Your task to perform on an android device: turn off priority inbox in the gmail app Image 0: 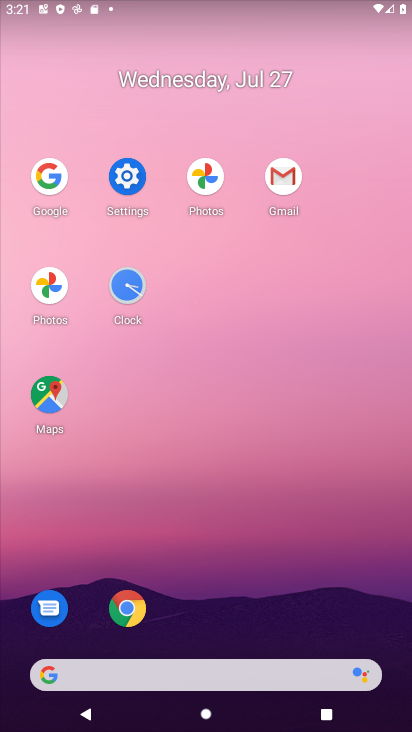
Step 0: click (275, 169)
Your task to perform on an android device: turn off priority inbox in the gmail app Image 1: 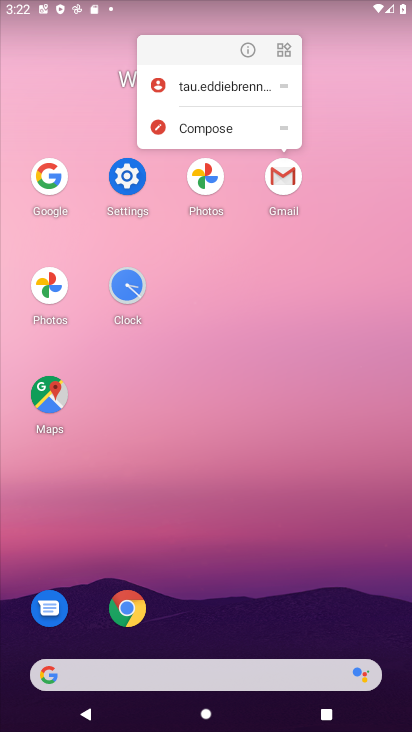
Step 1: click (282, 164)
Your task to perform on an android device: turn off priority inbox in the gmail app Image 2: 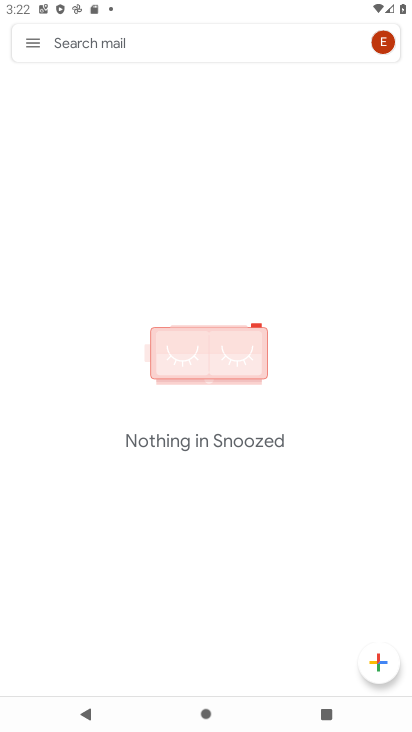
Step 2: click (23, 46)
Your task to perform on an android device: turn off priority inbox in the gmail app Image 3: 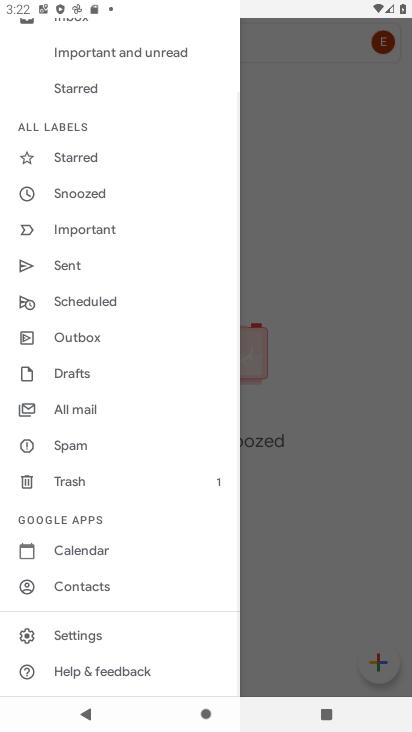
Step 3: click (75, 635)
Your task to perform on an android device: turn off priority inbox in the gmail app Image 4: 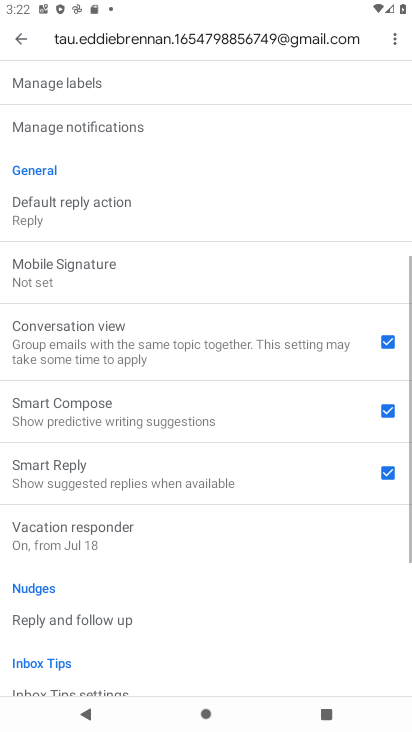
Step 4: drag from (93, 597) to (104, 265)
Your task to perform on an android device: turn off priority inbox in the gmail app Image 5: 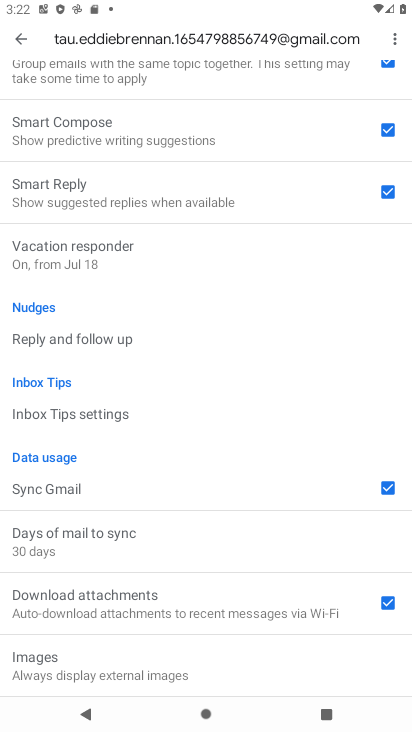
Step 5: drag from (326, 388) to (388, 617)
Your task to perform on an android device: turn off priority inbox in the gmail app Image 6: 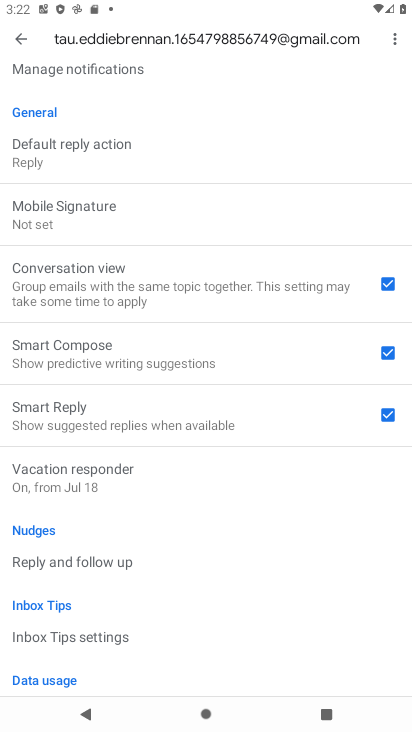
Step 6: drag from (186, 135) to (276, 485)
Your task to perform on an android device: turn off priority inbox in the gmail app Image 7: 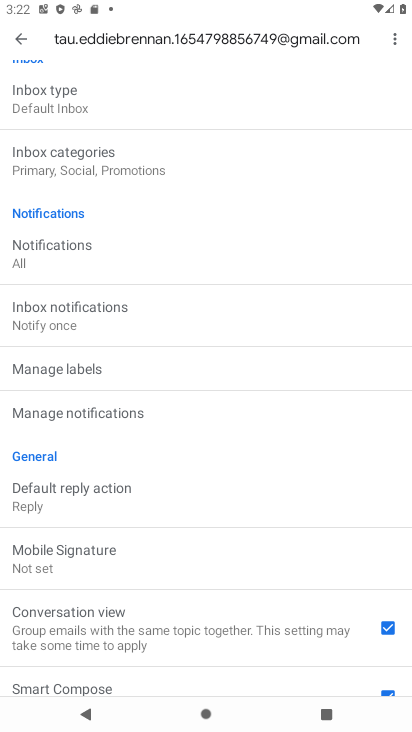
Step 7: click (75, 99)
Your task to perform on an android device: turn off priority inbox in the gmail app Image 8: 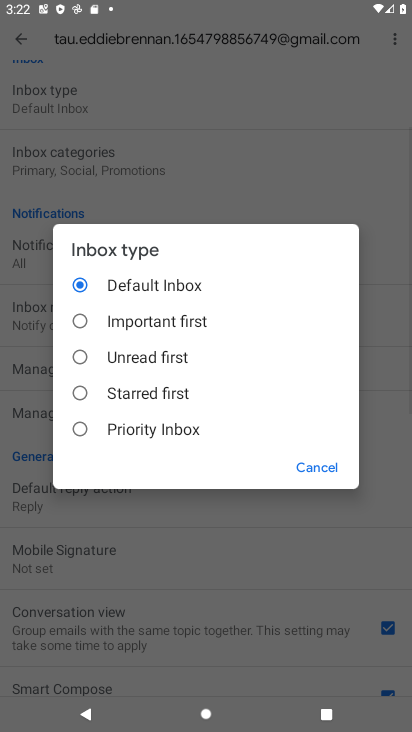
Step 8: task complete